Your task to perform on an android device: When is my next appointment? Image 0: 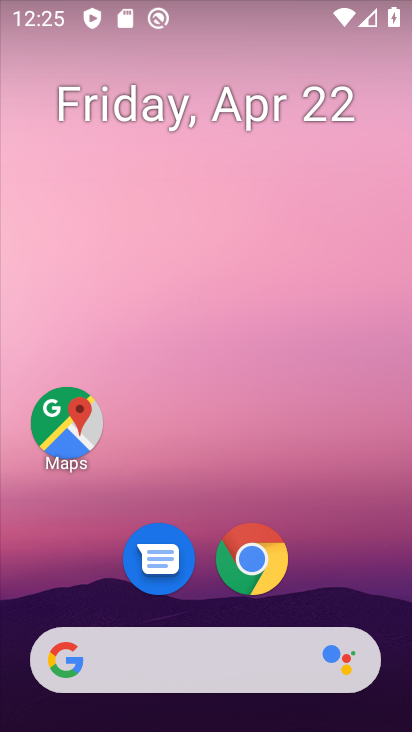
Step 0: drag from (352, 586) to (364, 141)
Your task to perform on an android device: When is my next appointment? Image 1: 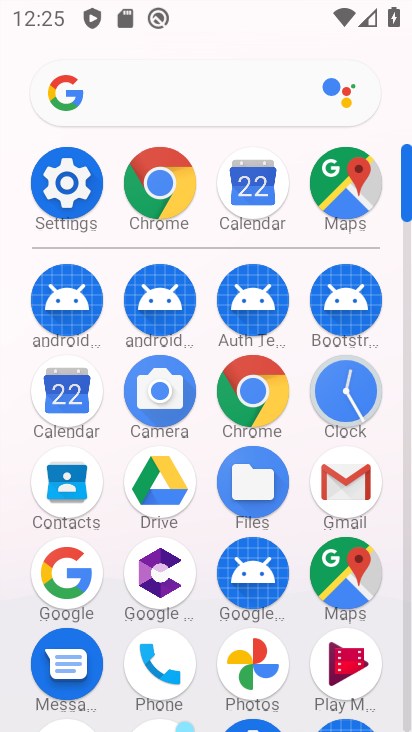
Step 1: click (52, 391)
Your task to perform on an android device: When is my next appointment? Image 2: 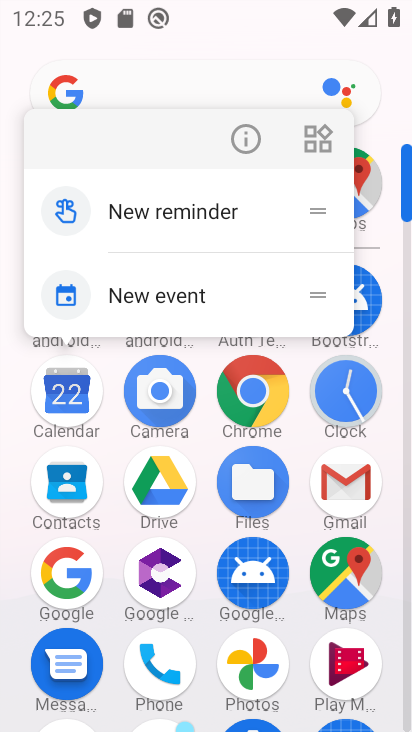
Step 2: click (62, 391)
Your task to perform on an android device: When is my next appointment? Image 3: 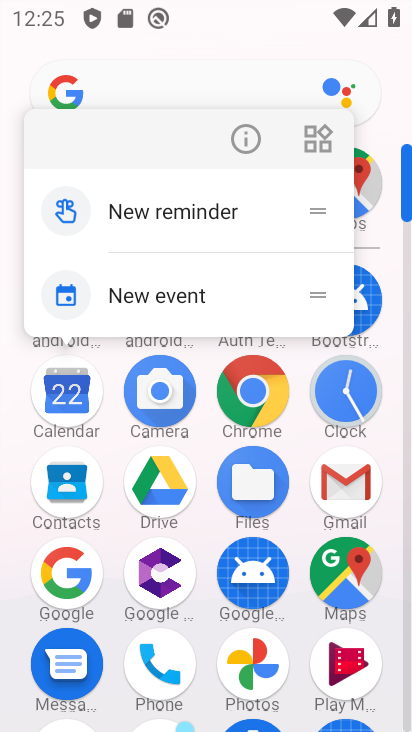
Step 3: click (50, 380)
Your task to perform on an android device: When is my next appointment? Image 4: 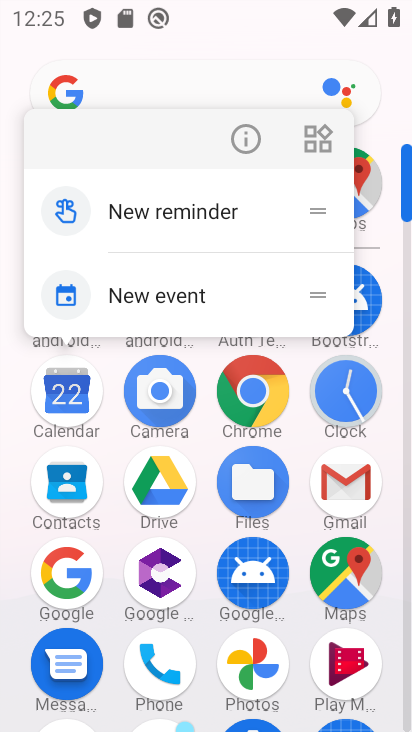
Step 4: click (73, 395)
Your task to perform on an android device: When is my next appointment? Image 5: 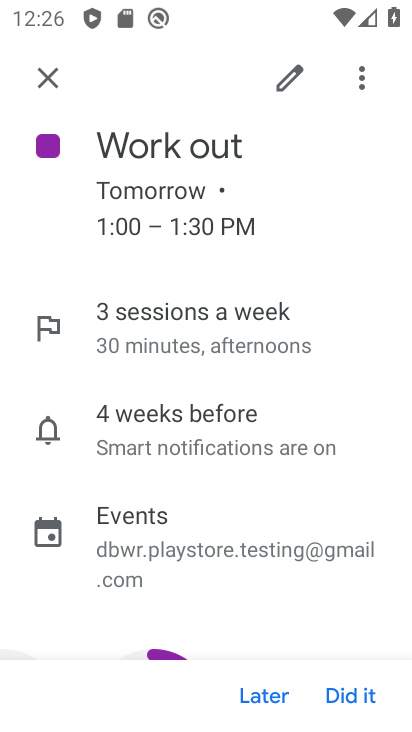
Step 5: task complete